Your task to perform on an android device: turn pop-ups on in chrome Image 0: 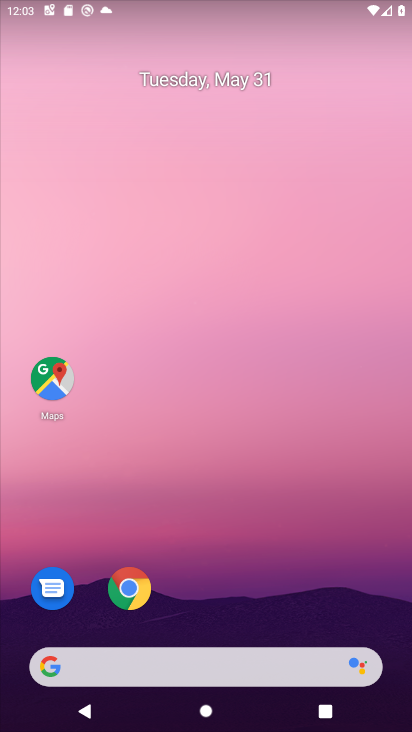
Step 0: drag from (284, 603) to (402, 103)
Your task to perform on an android device: turn pop-ups on in chrome Image 1: 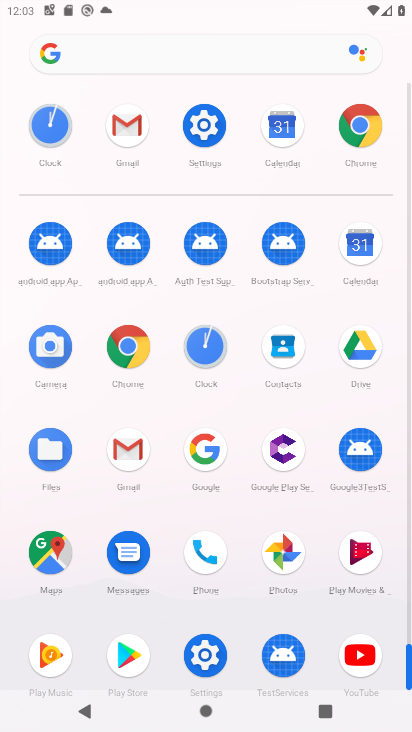
Step 1: click (134, 354)
Your task to perform on an android device: turn pop-ups on in chrome Image 2: 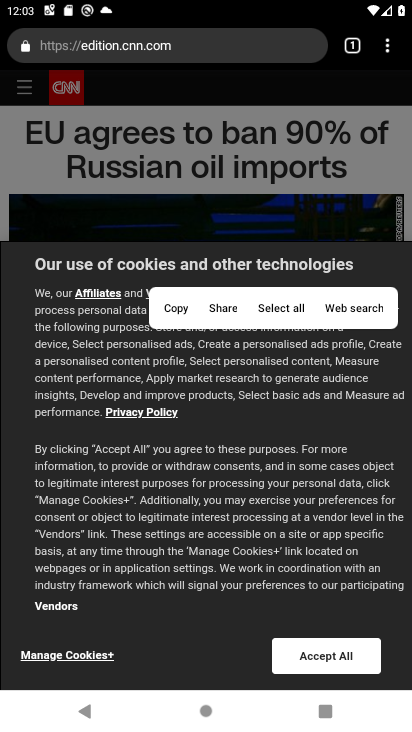
Step 2: press home button
Your task to perform on an android device: turn pop-ups on in chrome Image 3: 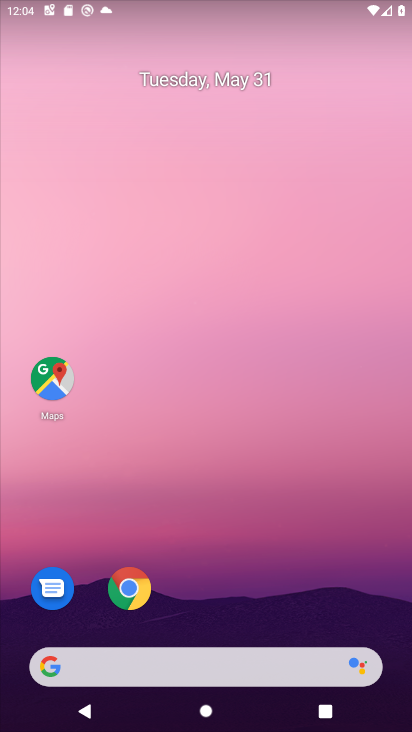
Step 3: drag from (263, 681) to (372, 83)
Your task to perform on an android device: turn pop-ups on in chrome Image 4: 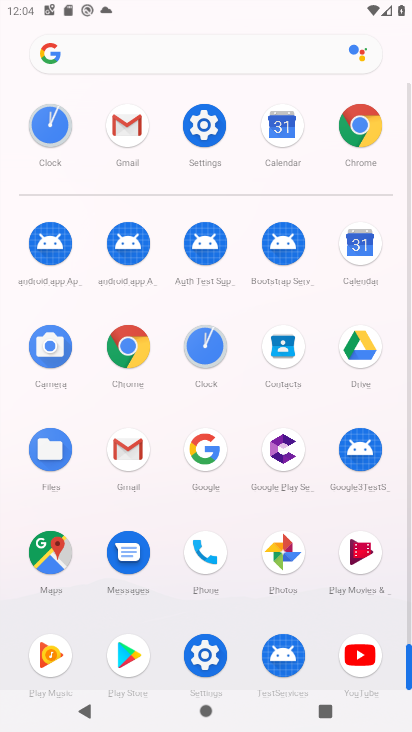
Step 4: click (116, 344)
Your task to perform on an android device: turn pop-ups on in chrome Image 5: 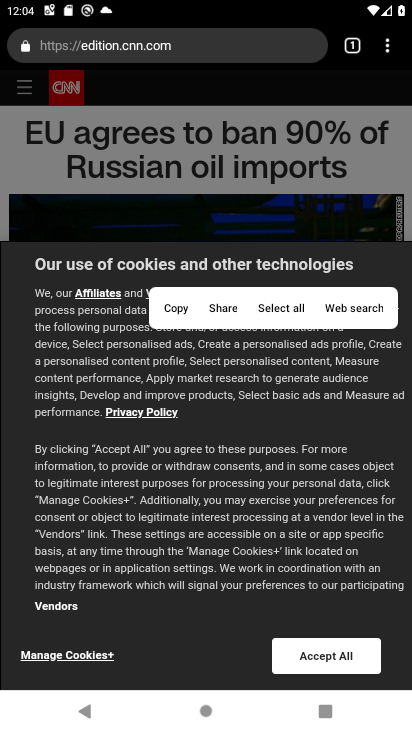
Step 5: click (259, 226)
Your task to perform on an android device: turn pop-ups on in chrome Image 6: 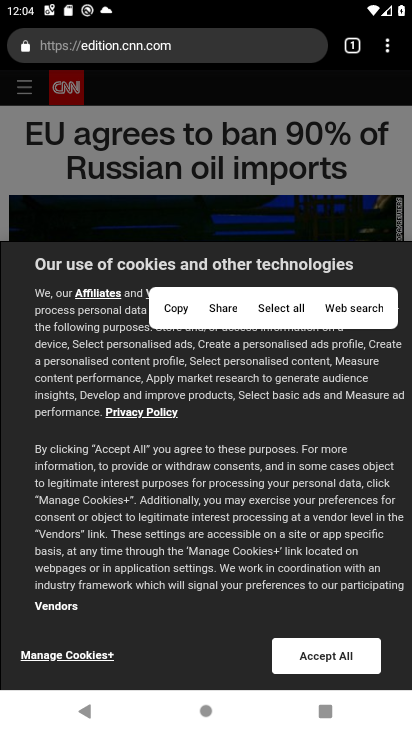
Step 6: click (383, 50)
Your task to perform on an android device: turn pop-ups on in chrome Image 7: 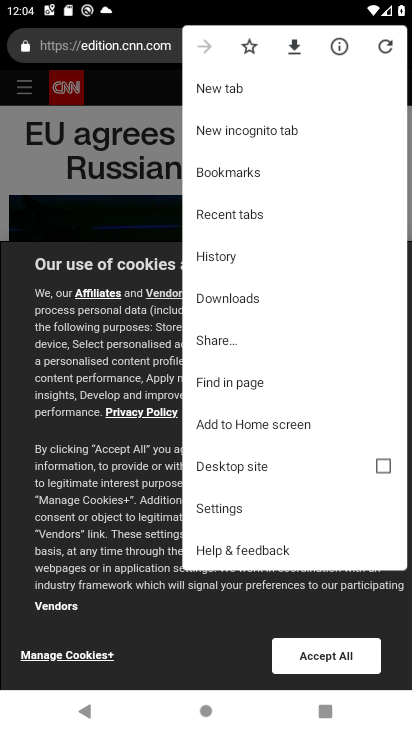
Step 7: click (249, 506)
Your task to perform on an android device: turn pop-ups on in chrome Image 8: 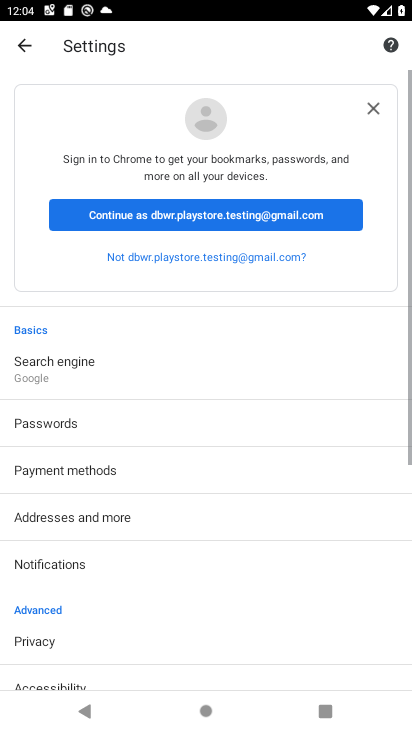
Step 8: drag from (297, 581) to (310, 148)
Your task to perform on an android device: turn pop-ups on in chrome Image 9: 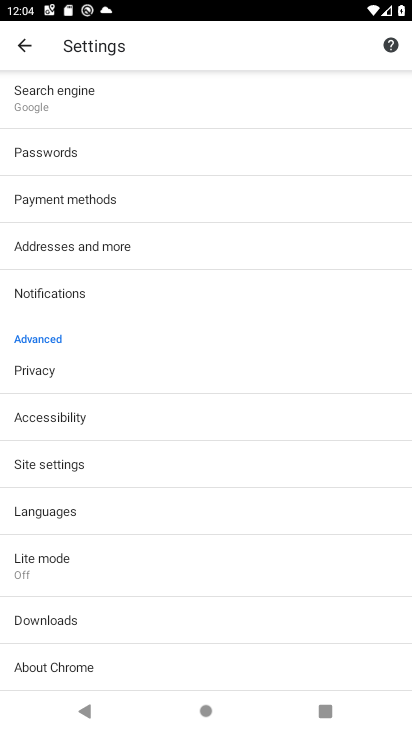
Step 9: click (124, 473)
Your task to perform on an android device: turn pop-ups on in chrome Image 10: 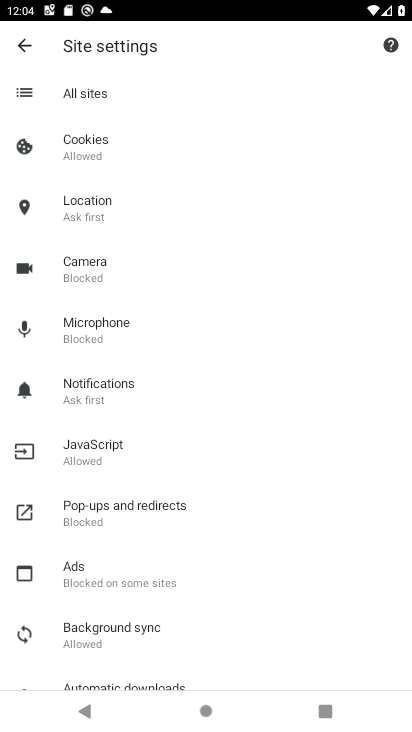
Step 10: click (111, 515)
Your task to perform on an android device: turn pop-ups on in chrome Image 11: 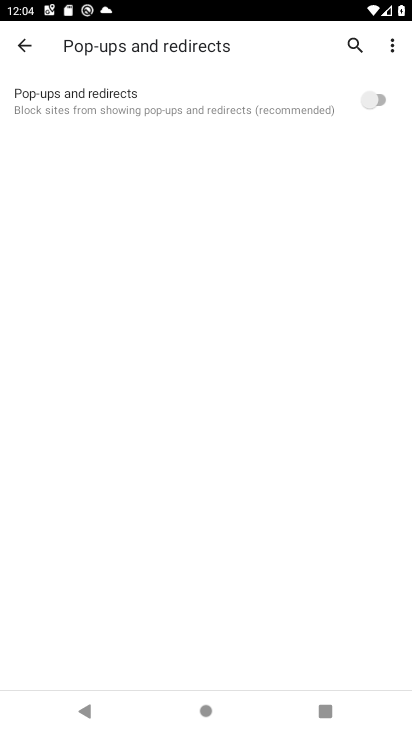
Step 11: click (380, 97)
Your task to perform on an android device: turn pop-ups on in chrome Image 12: 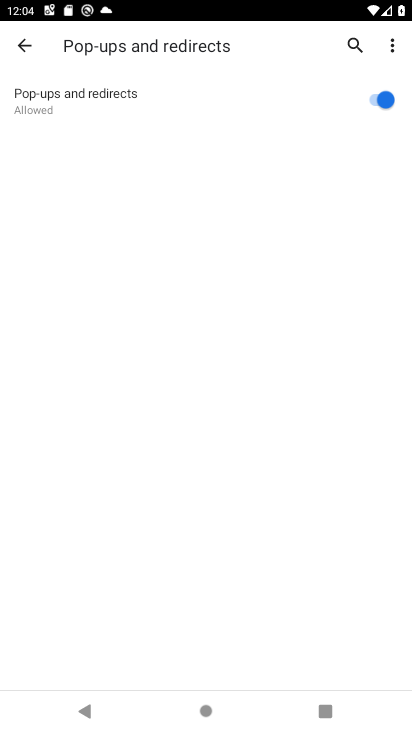
Step 12: task complete